Your task to perform on an android device: Open Google Maps and go to "Timeline" Image 0: 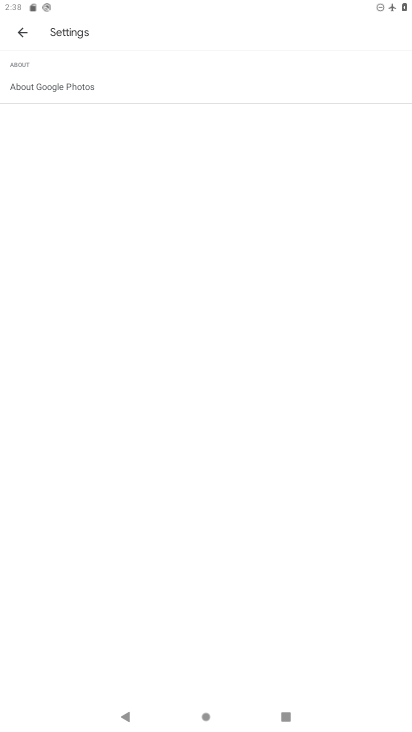
Step 0: press home button
Your task to perform on an android device: Open Google Maps and go to "Timeline" Image 1: 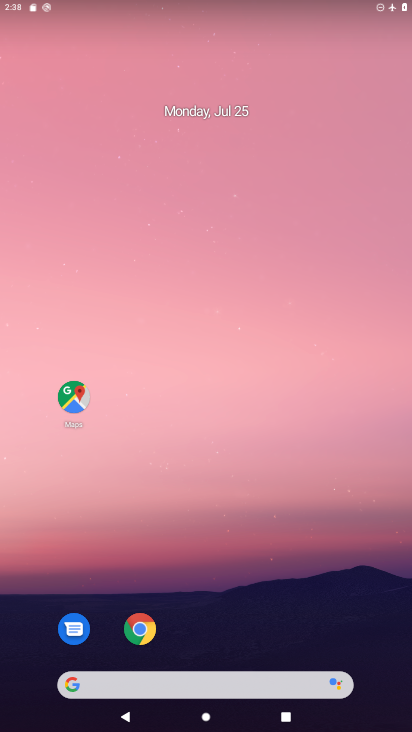
Step 1: drag from (301, 523) to (234, 15)
Your task to perform on an android device: Open Google Maps and go to "Timeline" Image 2: 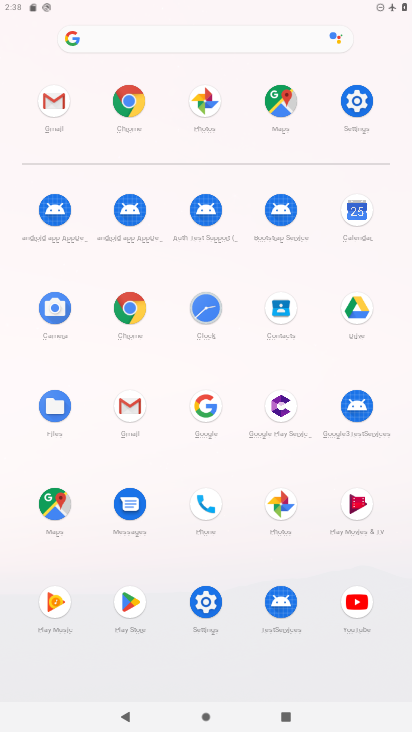
Step 2: click (47, 513)
Your task to perform on an android device: Open Google Maps and go to "Timeline" Image 3: 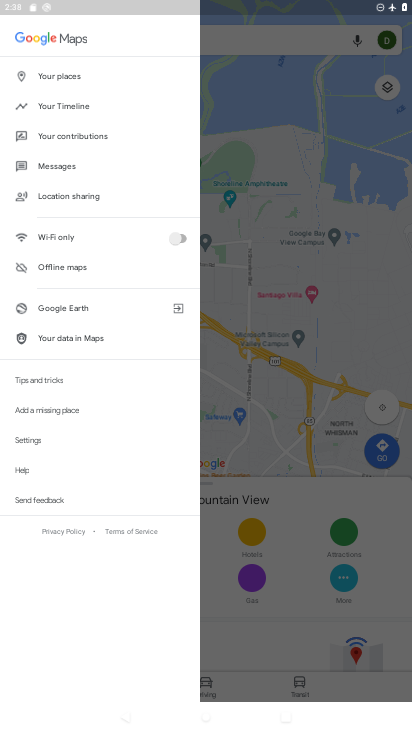
Step 3: click (33, 111)
Your task to perform on an android device: Open Google Maps and go to "Timeline" Image 4: 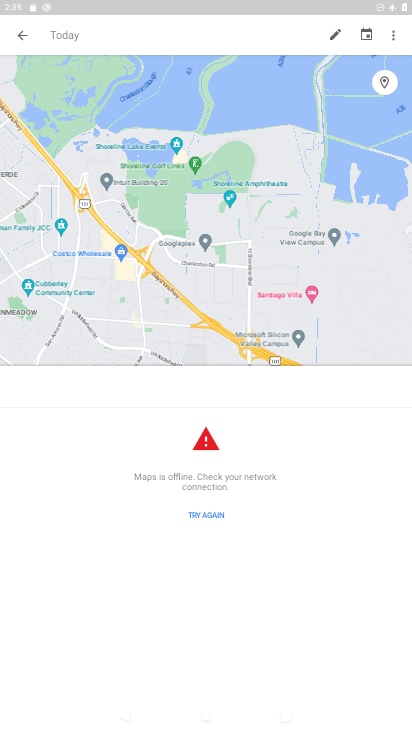
Step 4: task complete